Your task to perform on an android device: open wifi settings Image 0: 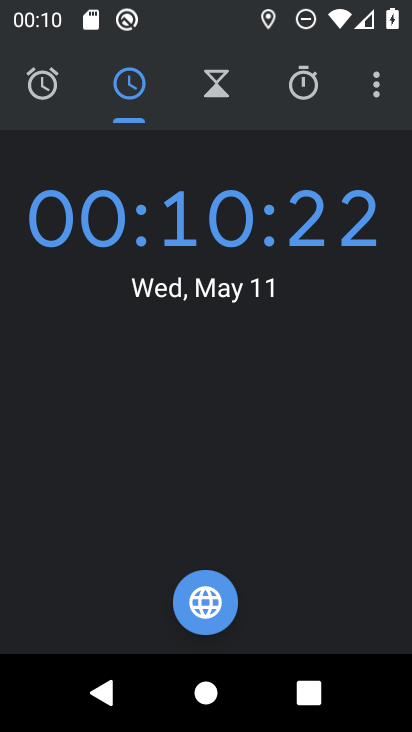
Step 0: press home button
Your task to perform on an android device: open wifi settings Image 1: 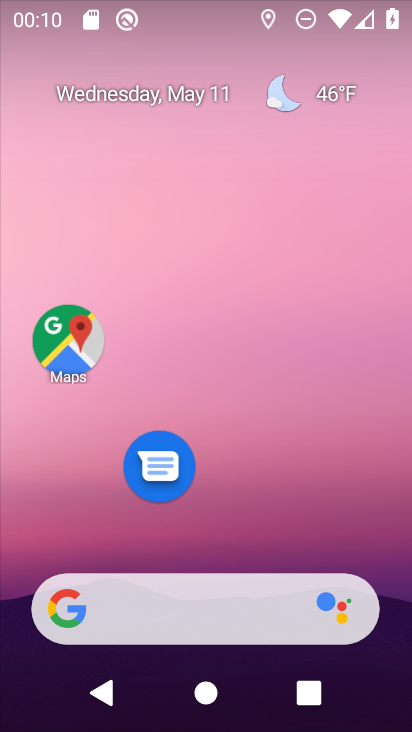
Step 1: drag from (271, 491) to (317, 55)
Your task to perform on an android device: open wifi settings Image 2: 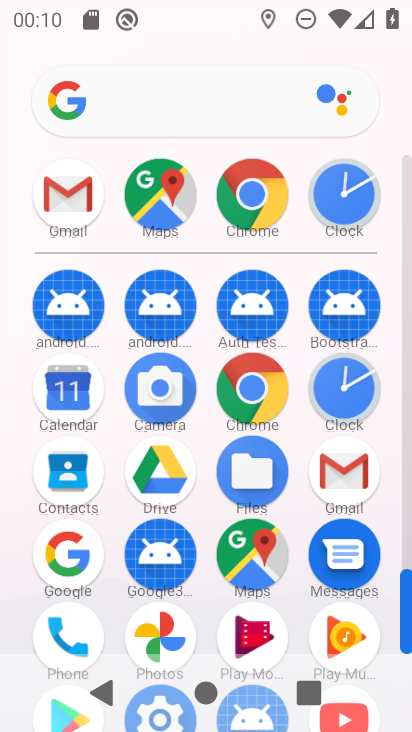
Step 2: drag from (207, 607) to (238, 340)
Your task to perform on an android device: open wifi settings Image 3: 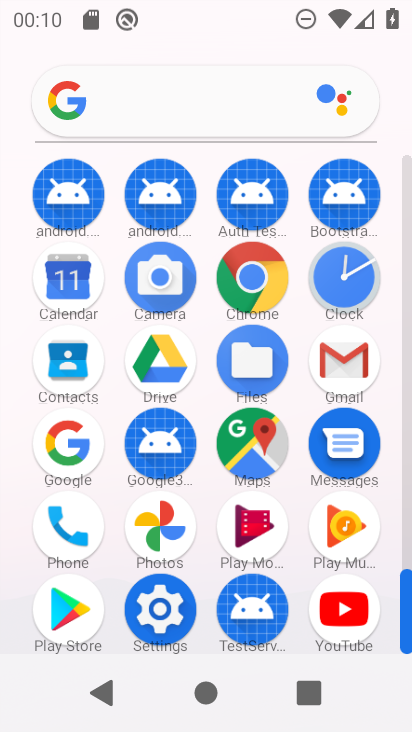
Step 3: click (163, 599)
Your task to perform on an android device: open wifi settings Image 4: 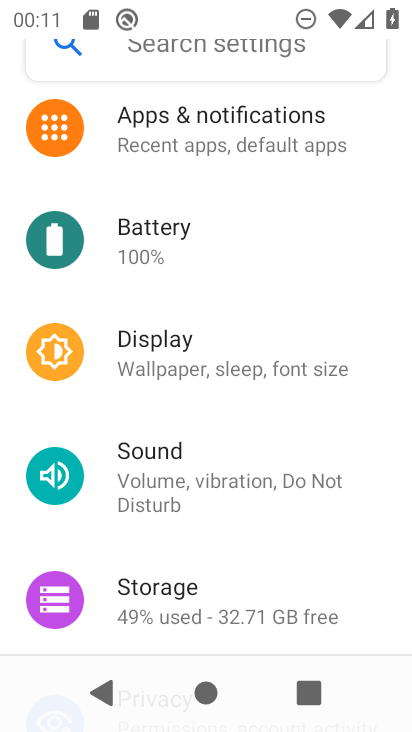
Step 4: drag from (314, 266) to (330, 381)
Your task to perform on an android device: open wifi settings Image 5: 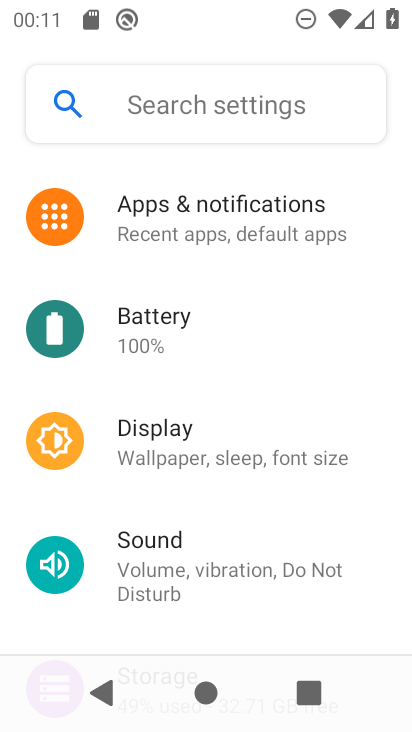
Step 5: drag from (320, 248) to (341, 329)
Your task to perform on an android device: open wifi settings Image 6: 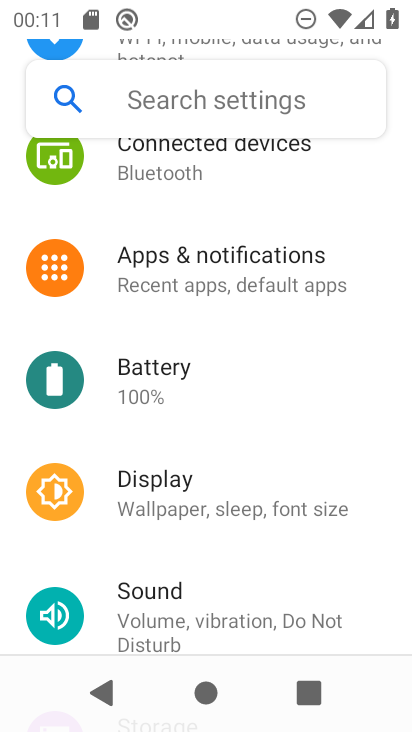
Step 6: drag from (325, 253) to (362, 354)
Your task to perform on an android device: open wifi settings Image 7: 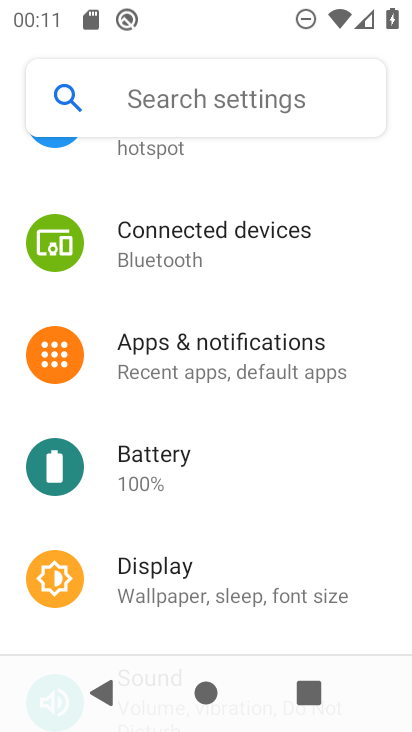
Step 7: drag from (335, 281) to (339, 374)
Your task to perform on an android device: open wifi settings Image 8: 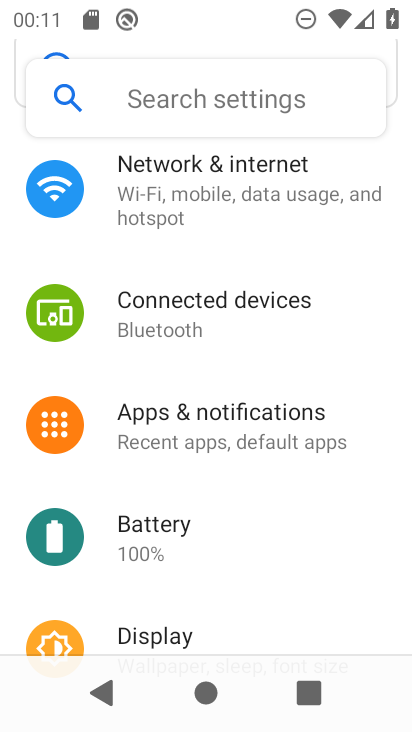
Step 8: click (324, 208)
Your task to perform on an android device: open wifi settings Image 9: 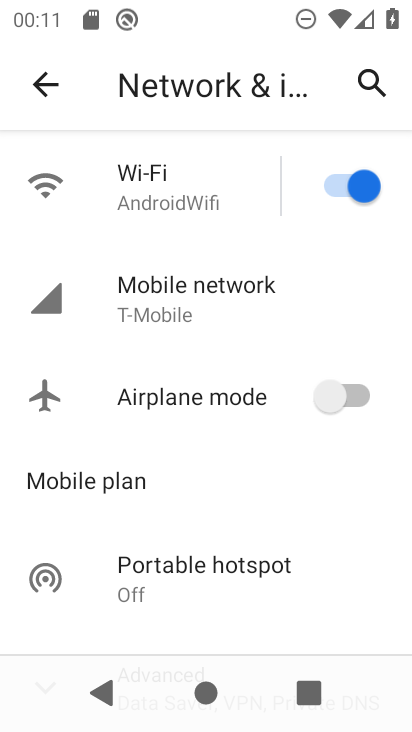
Step 9: click (85, 194)
Your task to perform on an android device: open wifi settings Image 10: 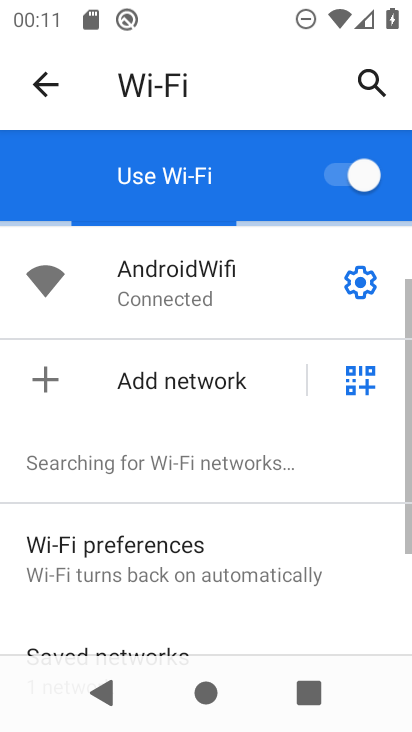
Step 10: task complete